Your task to perform on an android device: turn off airplane mode Image 0: 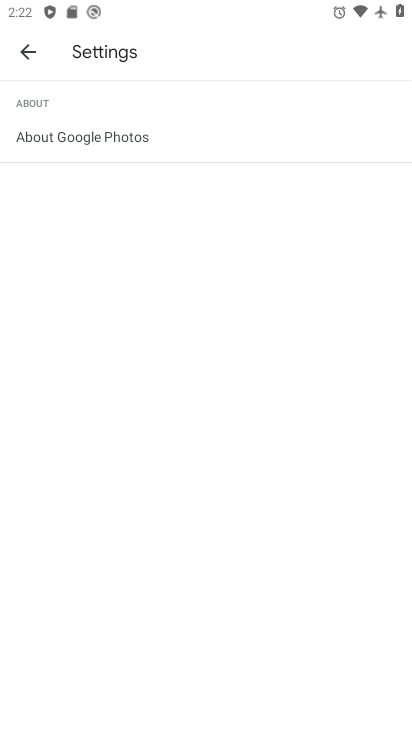
Step 0: press back button
Your task to perform on an android device: turn off airplane mode Image 1: 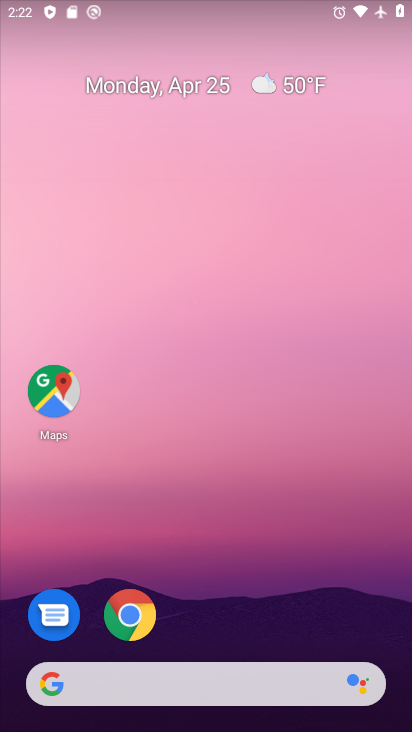
Step 1: drag from (236, 469) to (221, 20)
Your task to perform on an android device: turn off airplane mode Image 2: 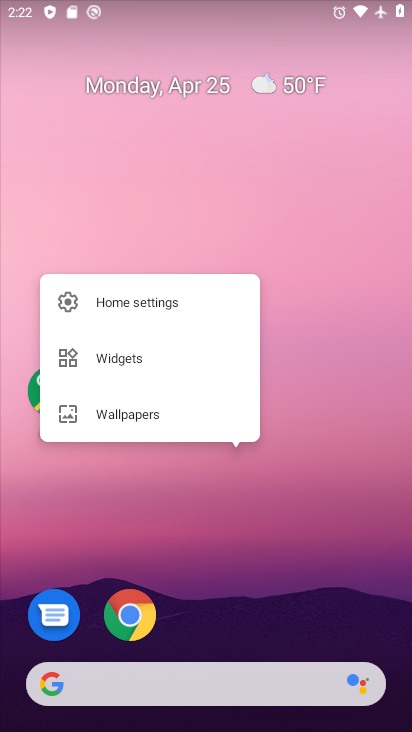
Step 2: drag from (314, 504) to (214, 4)
Your task to perform on an android device: turn off airplane mode Image 3: 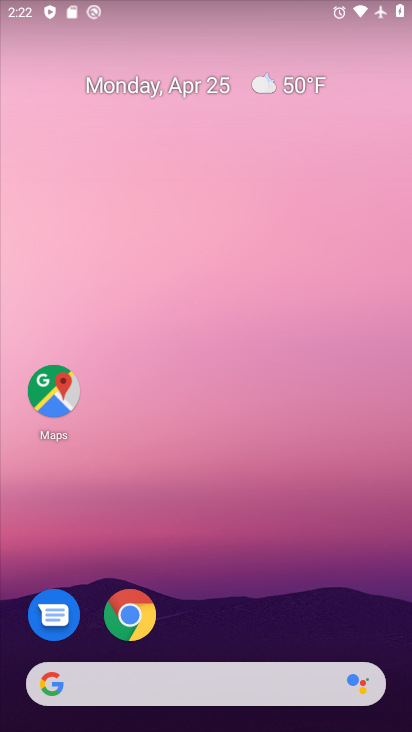
Step 3: drag from (202, 411) to (242, 42)
Your task to perform on an android device: turn off airplane mode Image 4: 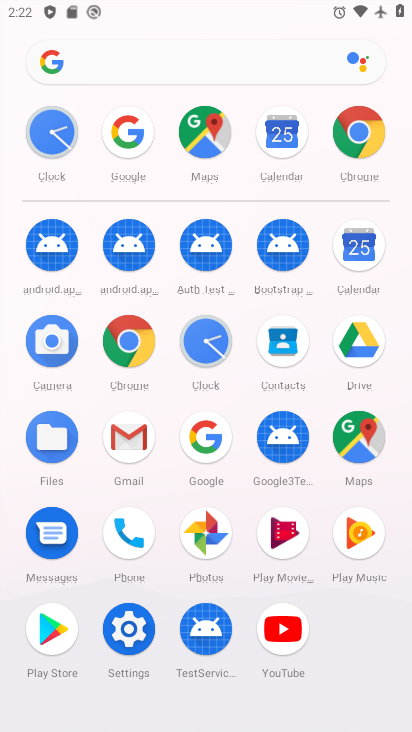
Step 4: click (129, 631)
Your task to perform on an android device: turn off airplane mode Image 5: 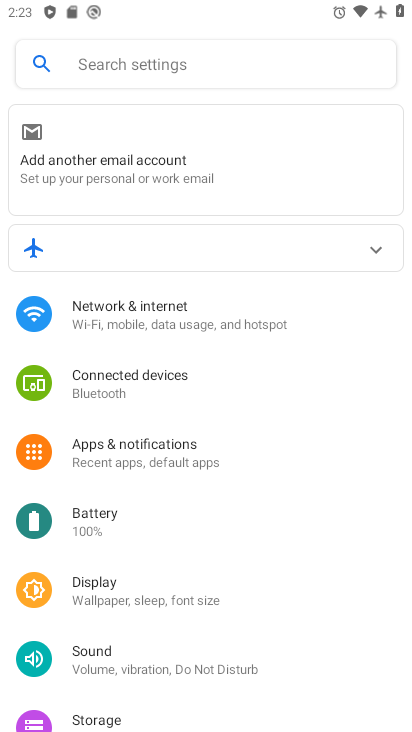
Step 5: click (184, 323)
Your task to perform on an android device: turn off airplane mode Image 6: 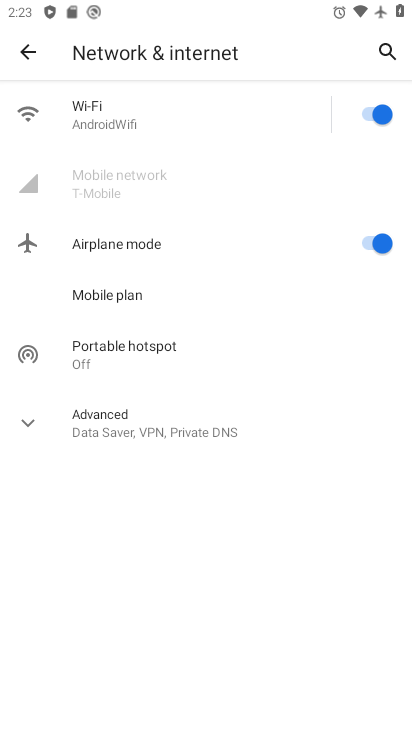
Step 6: click (384, 241)
Your task to perform on an android device: turn off airplane mode Image 7: 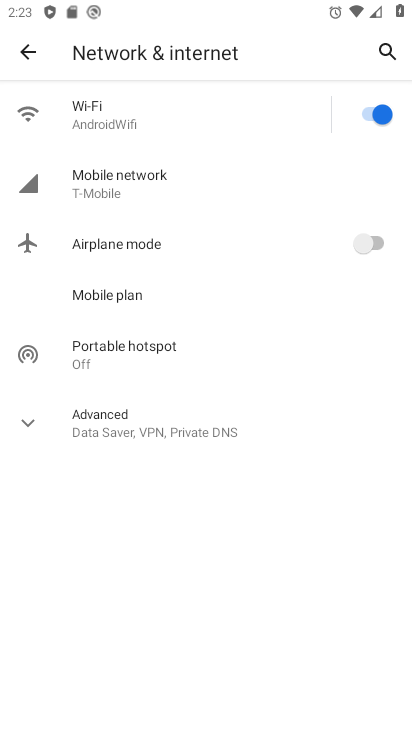
Step 7: task complete